Your task to perform on an android device: star an email in the gmail app Image 0: 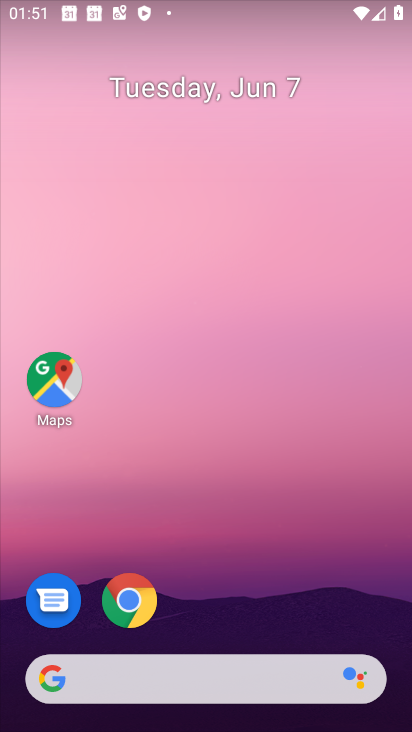
Step 0: drag from (205, 721) to (200, 115)
Your task to perform on an android device: star an email in the gmail app Image 1: 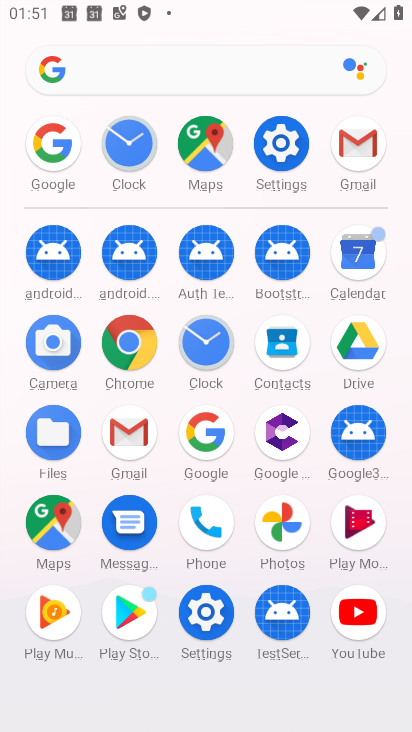
Step 1: click (127, 427)
Your task to perform on an android device: star an email in the gmail app Image 2: 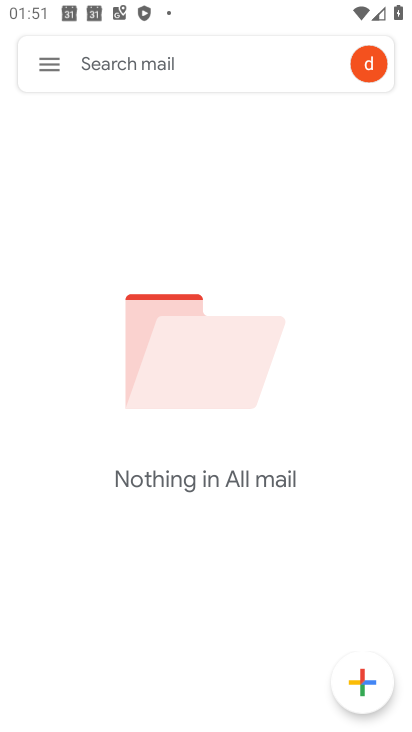
Step 2: click (54, 64)
Your task to perform on an android device: star an email in the gmail app Image 3: 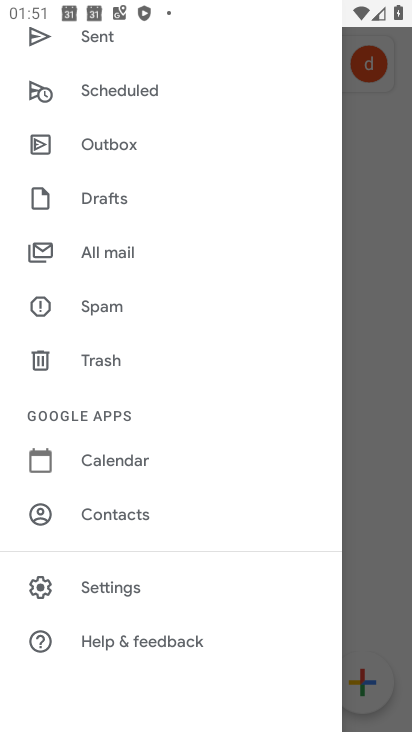
Step 3: drag from (127, 146) to (139, 676)
Your task to perform on an android device: star an email in the gmail app Image 4: 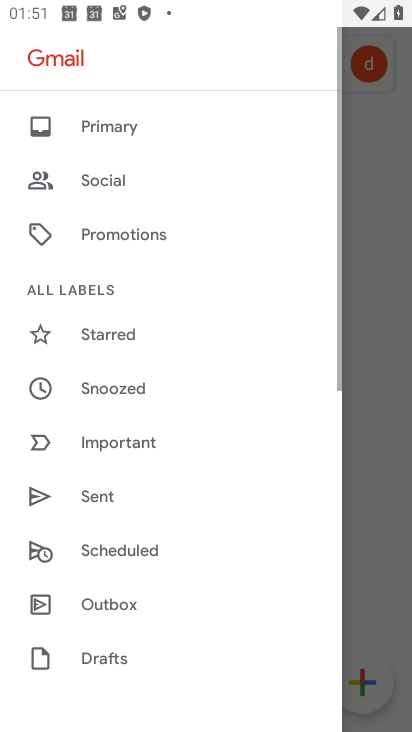
Step 4: drag from (144, 160) to (141, 460)
Your task to perform on an android device: star an email in the gmail app Image 5: 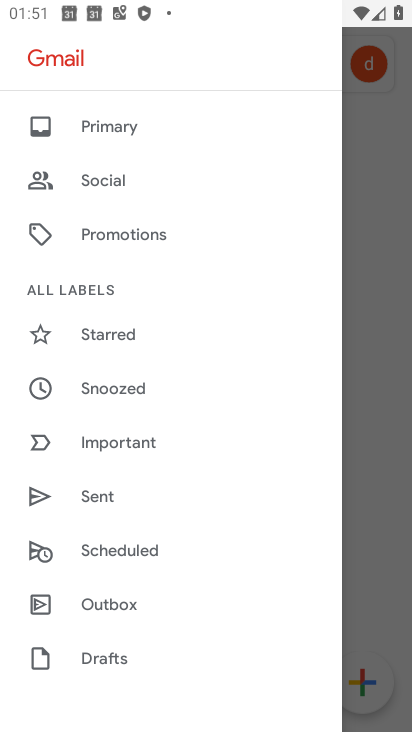
Step 5: click (109, 124)
Your task to perform on an android device: star an email in the gmail app Image 6: 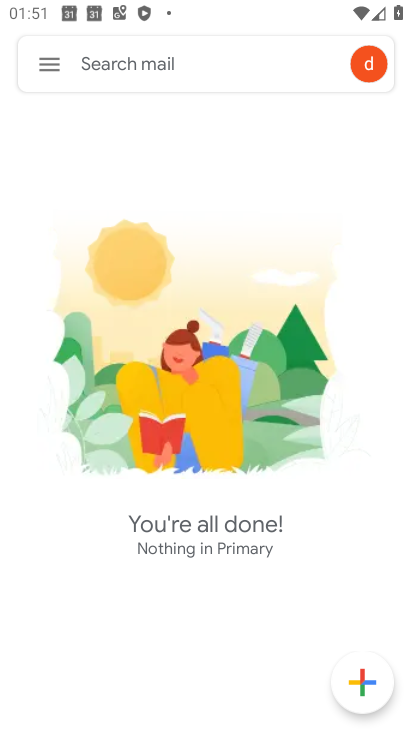
Step 6: task complete